Your task to perform on an android device: open app "Grab" (install if not already installed) and enter user name: "interspersion@gmail.com" and password: "aristocrats" Image 0: 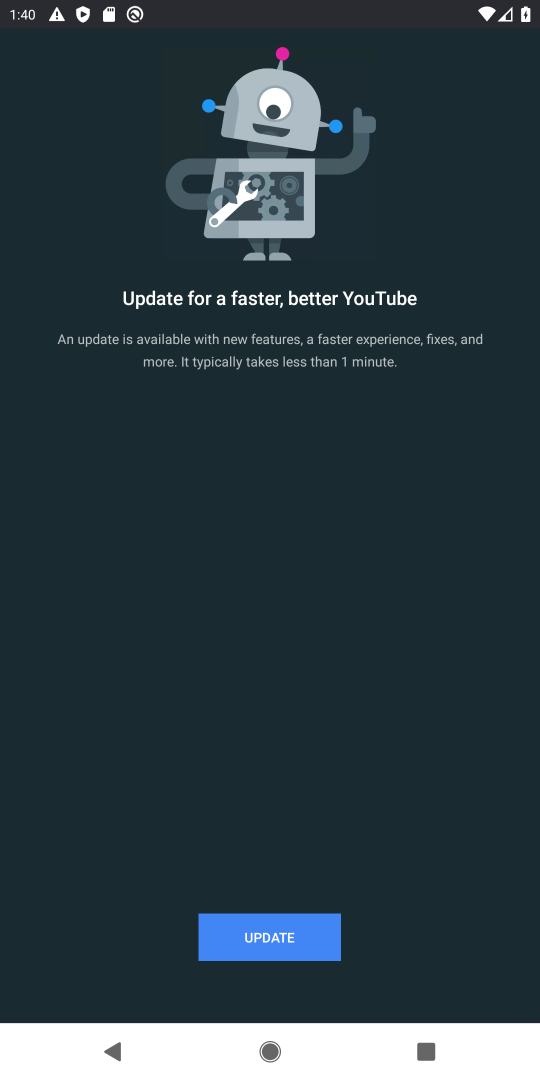
Step 0: press home button
Your task to perform on an android device: open app "Grab" (install if not already installed) and enter user name: "interspersion@gmail.com" and password: "aristocrats" Image 1: 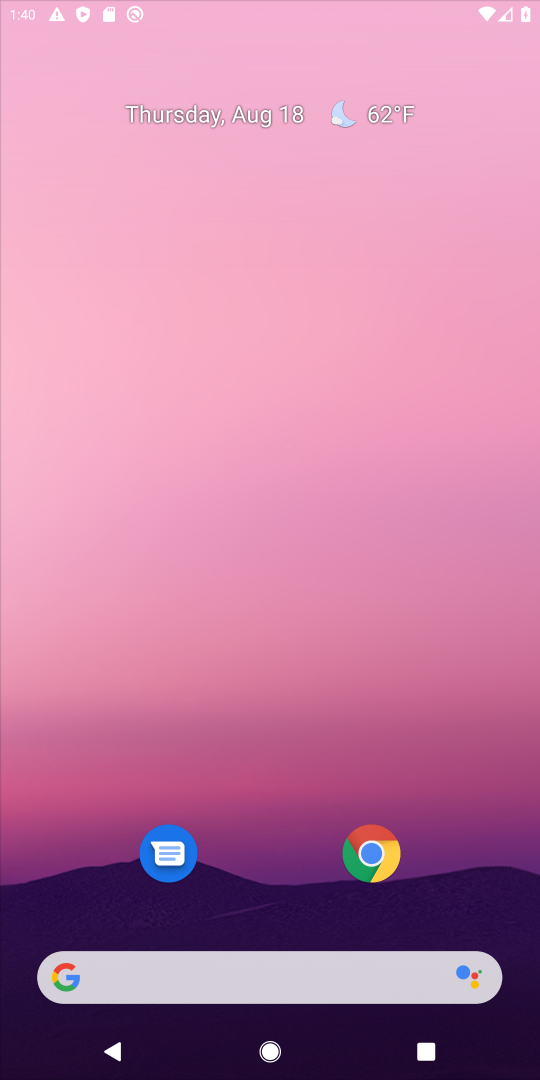
Step 1: drag from (506, 913) to (144, 32)
Your task to perform on an android device: open app "Grab" (install if not already installed) and enter user name: "interspersion@gmail.com" and password: "aristocrats" Image 2: 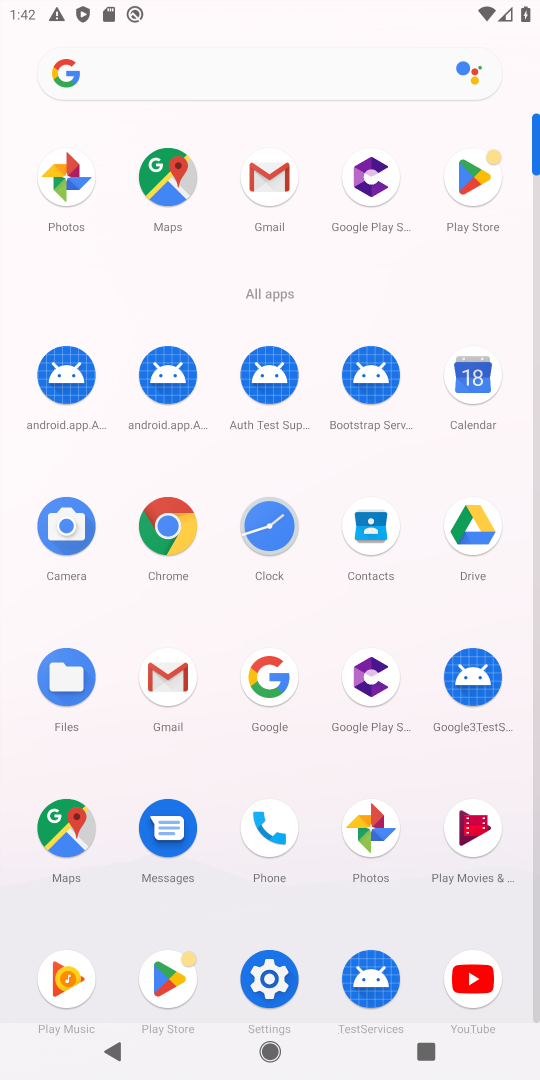
Step 2: click (452, 184)
Your task to perform on an android device: open app "Grab" (install if not already installed) and enter user name: "interspersion@gmail.com" and password: "aristocrats" Image 3: 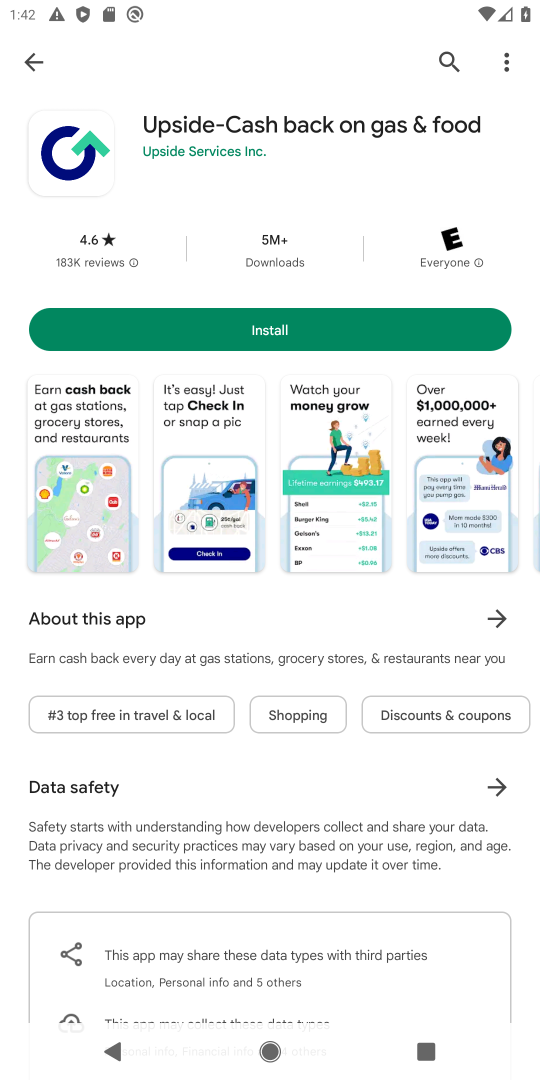
Step 3: press back button
Your task to perform on an android device: open app "Grab" (install if not already installed) and enter user name: "interspersion@gmail.com" and password: "aristocrats" Image 4: 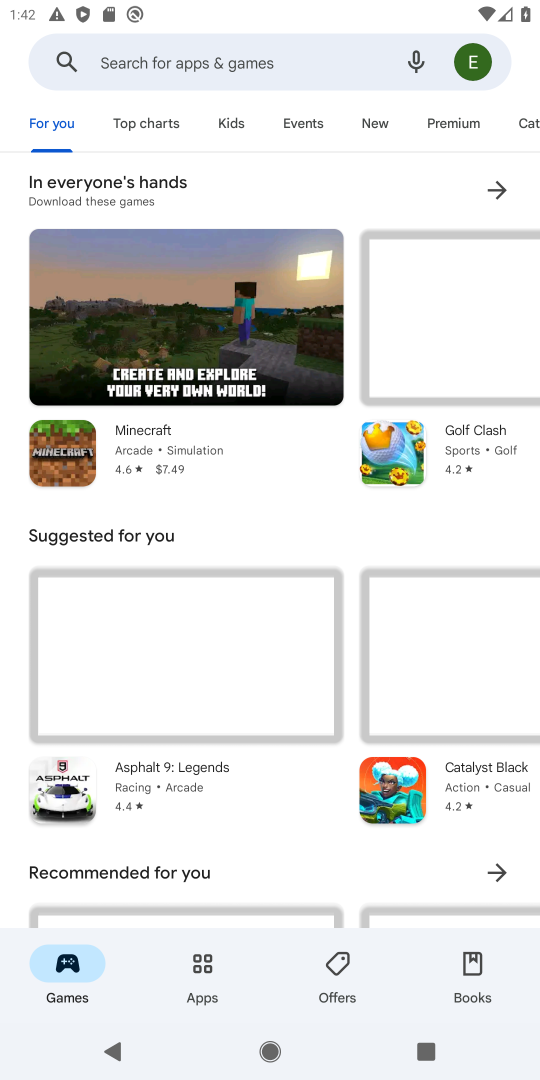
Step 4: click (222, 44)
Your task to perform on an android device: open app "Grab" (install if not already installed) and enter user name: "interspersion@gmail.com" and password: "aristocrats" Image 5: 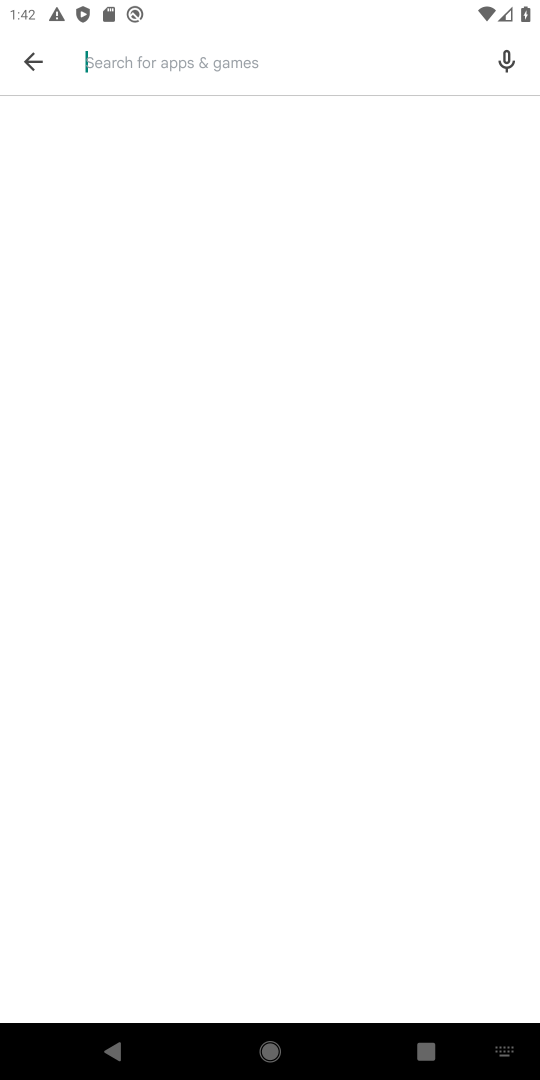
Step 5: type "Grab"
Your task to perform on an android device: open app "Grab" (install if not already installed) and enter user name: "interspersion@gmail.com" and password: "aristocrats" Image 6: 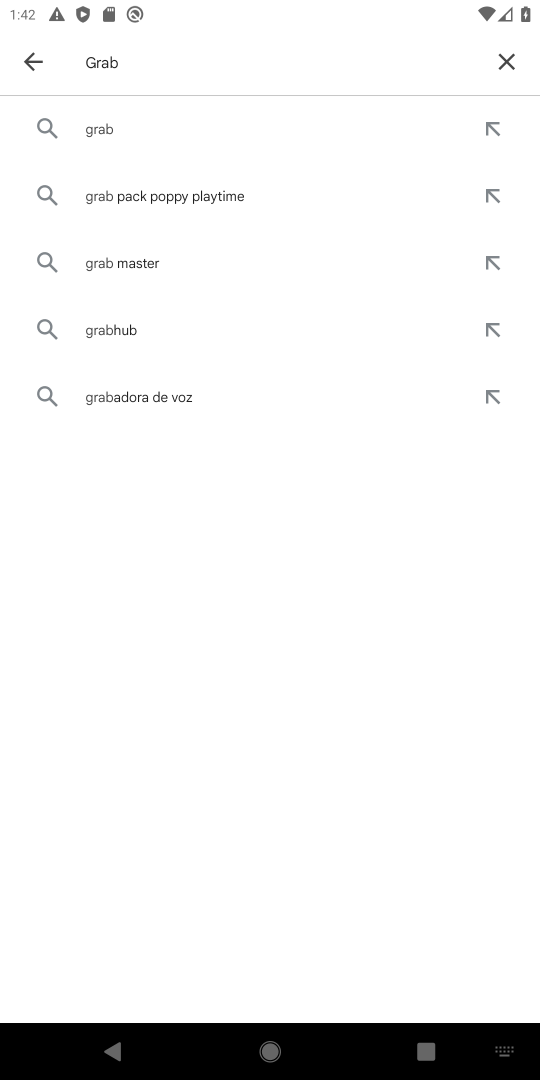
Step 6: click (127, 125)
Your task to perform on an android device: open app "Grab" (install if not already installed) and enter user name: "interspersion@gmail.com" and password: "aristocrats" Image 7: 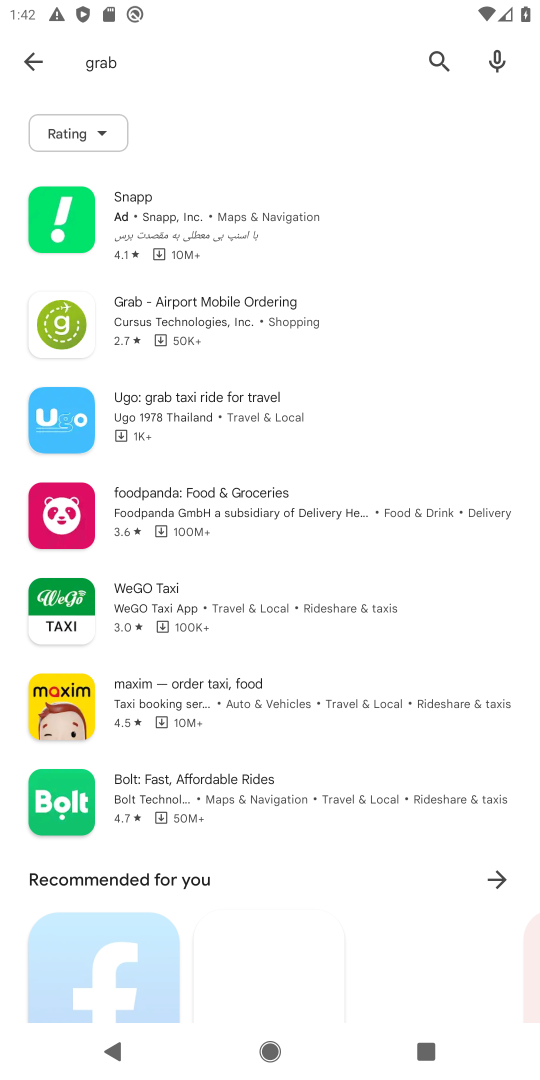
Step 7: task complete